Your task to perform on an android device: Open ESPN.com Image 0: 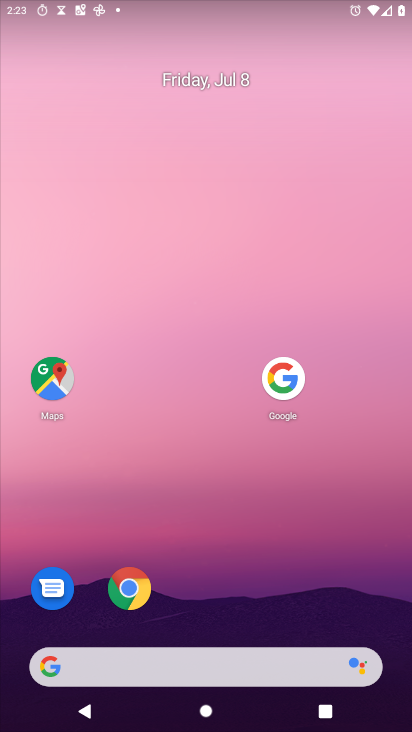
Step 0: click (135, 591)
Your task to perform on an android device: Open ESPN.com Image 1: 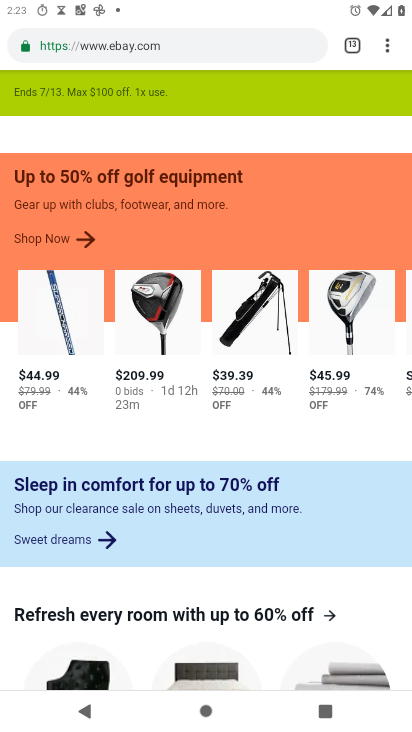
Step 1: drag from (387, 47) to (229, 89)
Your task to perform on an android device: Open ESPN.com Image 2: 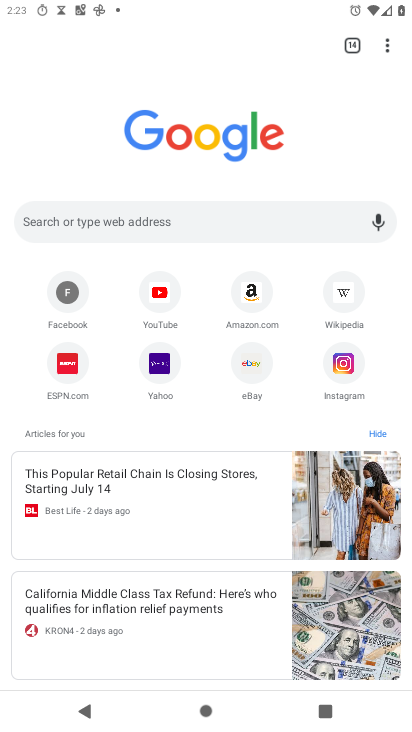
Step 2: click (67, 364)
Your task to perform on an android device: Open ESPN.com Image 3: 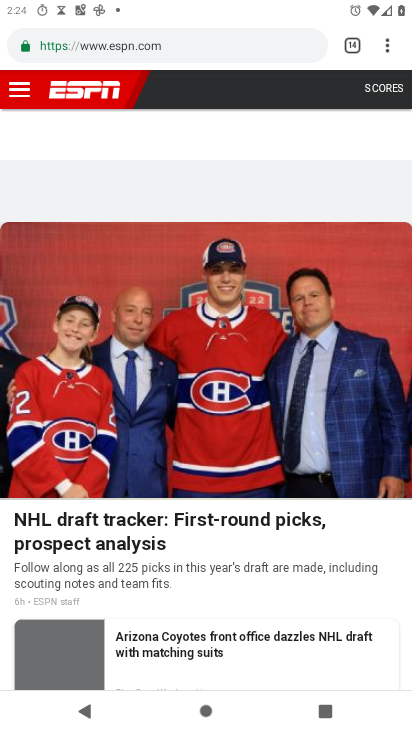
Step 3: task complete